Your task to perform on an android device: Search for sushi restaurants on Maps Image 0: 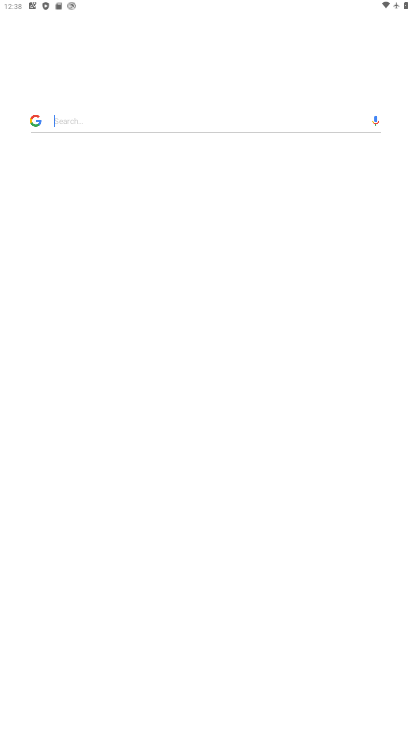
Step 0: drag from (222, 625) to (204, 478)
Your task to perform on an android device: Search for sushi restaurants on Maps Image 1: 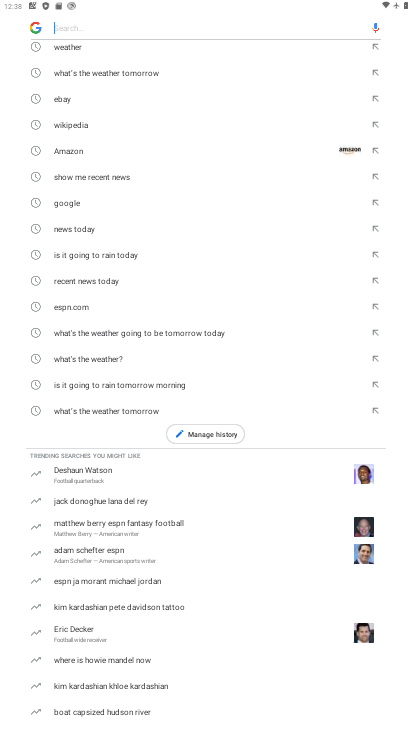
Step 1: press back button
Your task to perform on an android device: Search for sushi restaurants on Maps Image 2: 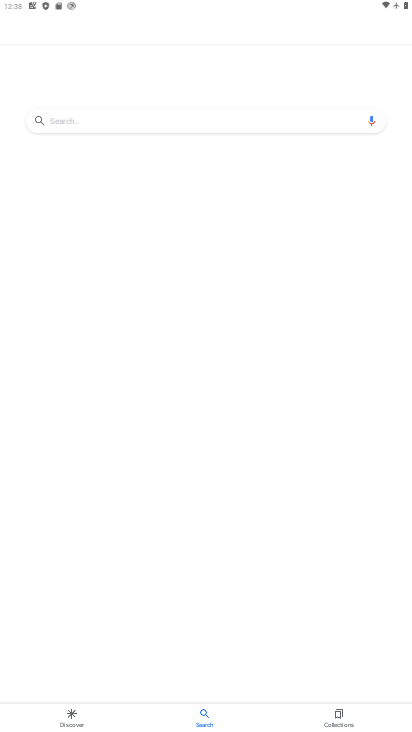
Step 2: press back button
Your task to perform on an android device: Search for sushi restaurants on Maps Image 3: 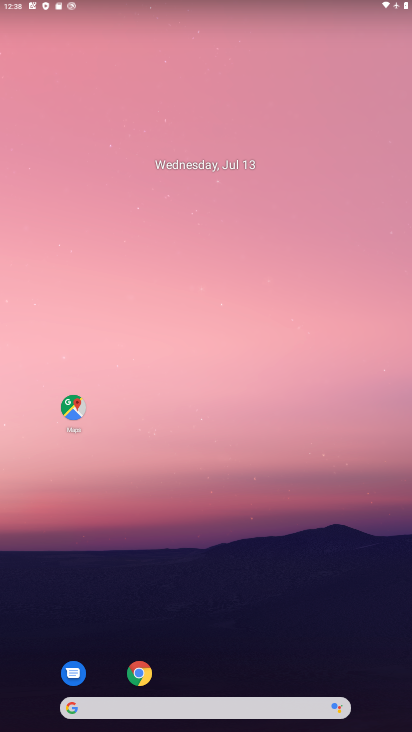
Step 3: drag from (244, 669) to (247, 35)
Your task to perform on an android device: Search for sushi restaurants on Maps Image 4: 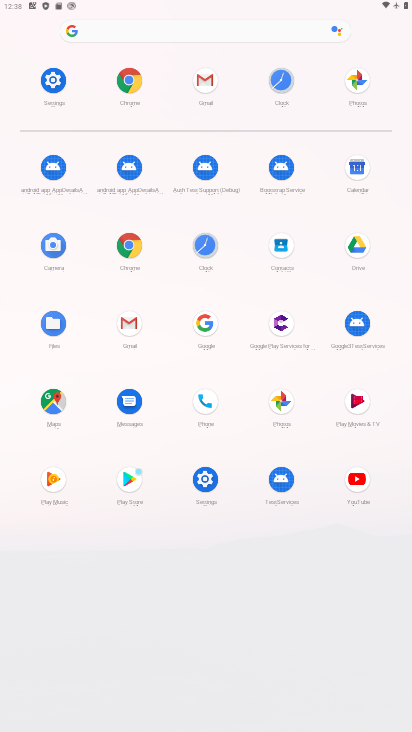
Step 4: click (53, 419)
Your task to perform on an android device: Search for sushi restaurants on Maps Image 5: 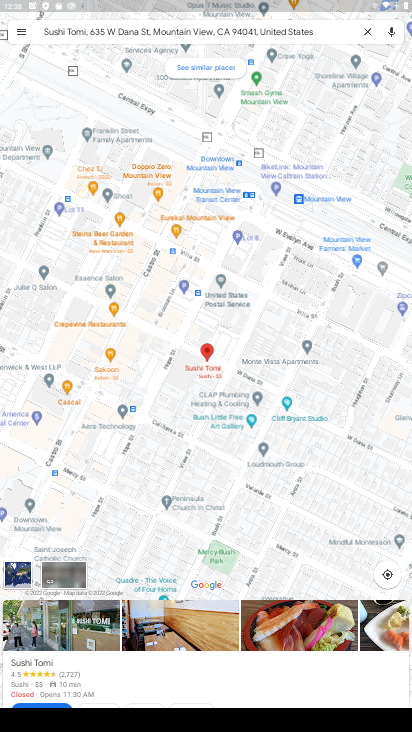
Step 5: click (256, 32)
Your task to perform on an android device: Search for sushi restaurants on Maps Image 6: 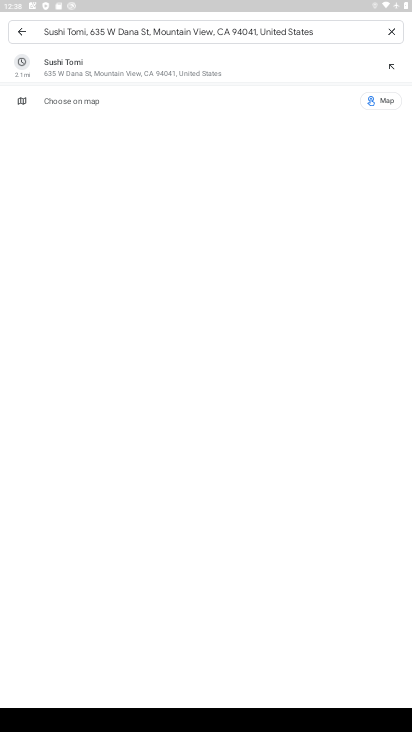
Step 6: click (392, 33)
Your task to perform on an android device: Search for sushi restaurants on Maps Image 7: 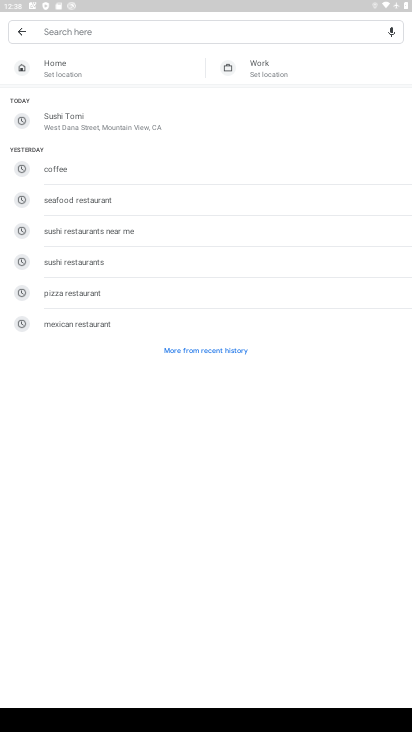
Step 7: click (165, 227)
Your task to perform on an android device: Search for sushi restaurants on Maps Image 8: 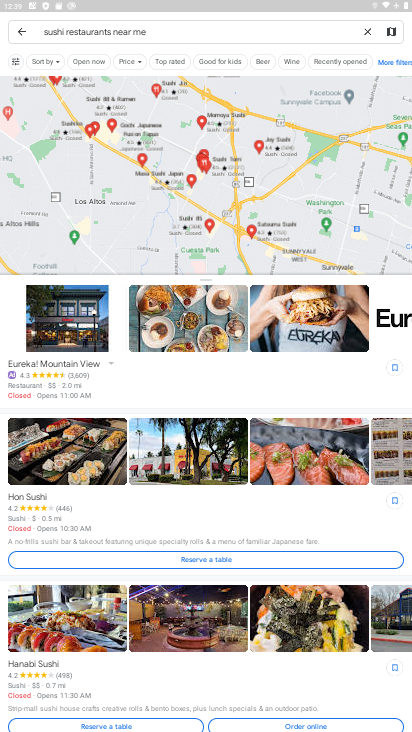
Step 8: task complete